Your task to perform on an android device: turn off notifications in google photos Image 0: 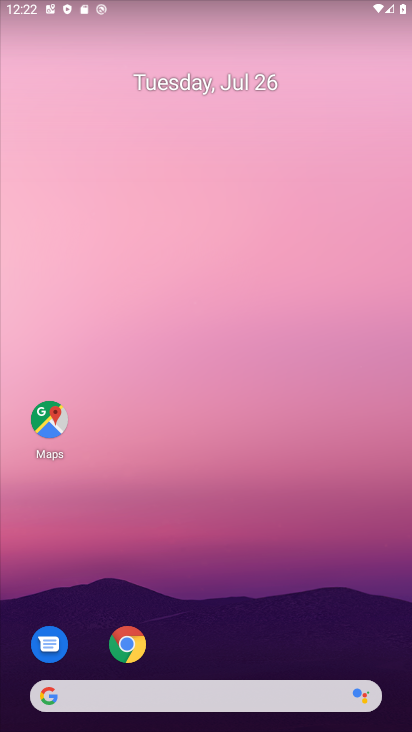
Step 0: drag from (228, 593) to (175, 95)
Your task to perform on an android device: turn off notifications in google photos Image 1: 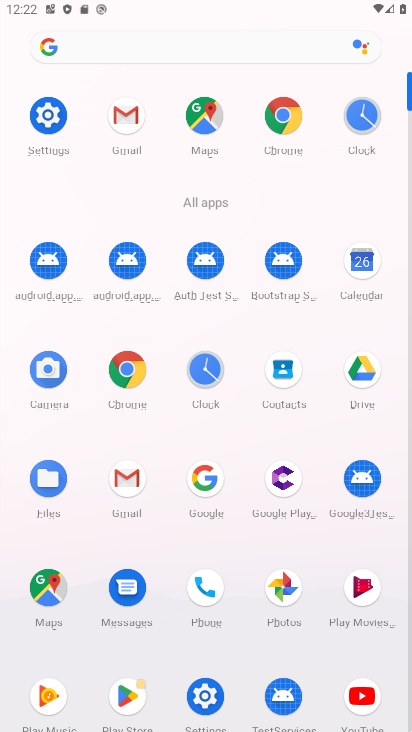
Step 1: click (284, 585)
Your task to perform on an android device: turn off notifications in google photos Image 2: 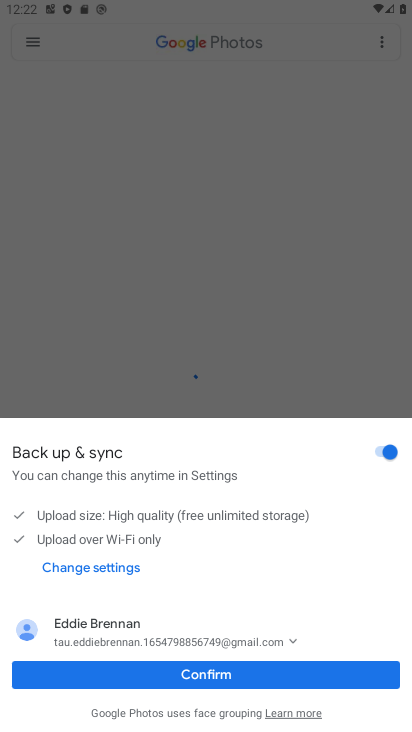
Step 2: click (231, 667)
Your task to perform on an android device: turn off notifications in google photos Image 3: 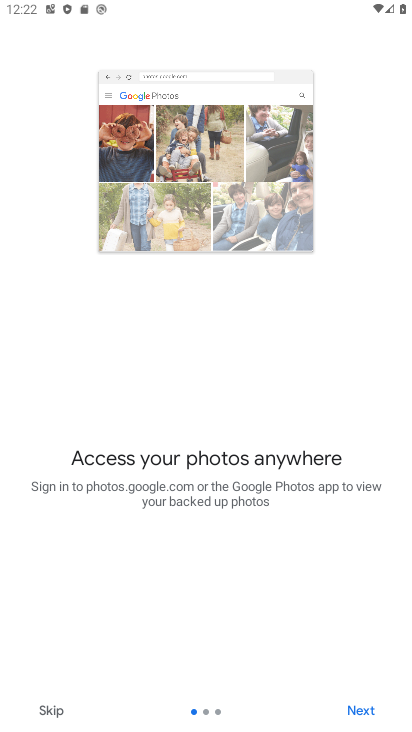
Step 3: click (354, 712)
Your task to perform on an android device: turn off notifications in google photos Image 4: 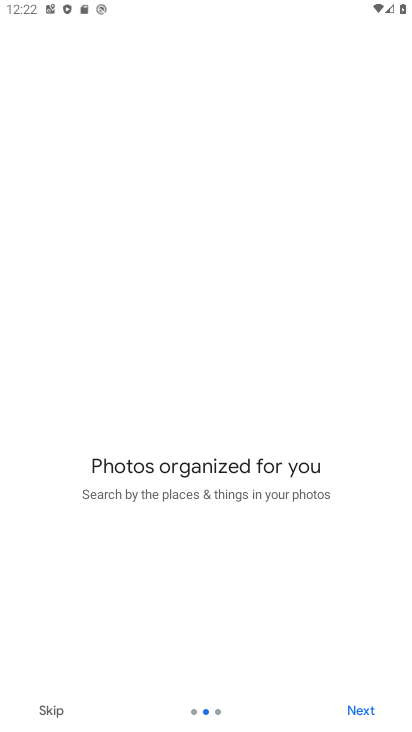
Step 4: click (354, 712)
Your task to perform on an android device: turn off notifications in google photos Image 5: 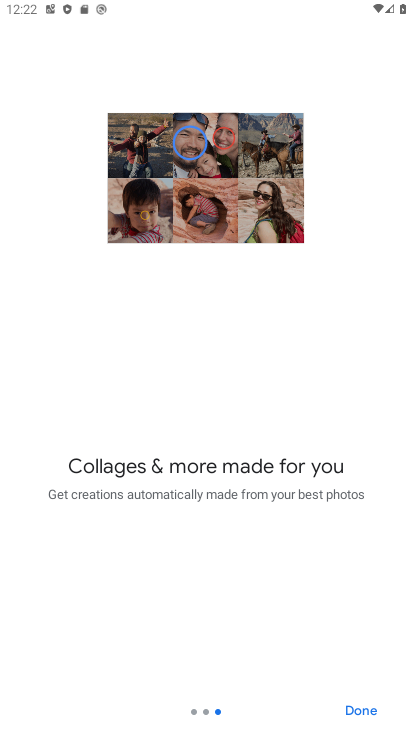
Step 5: click (356, 712)
Your task to perform on an android device: turn off notifications in google photos Image 6: 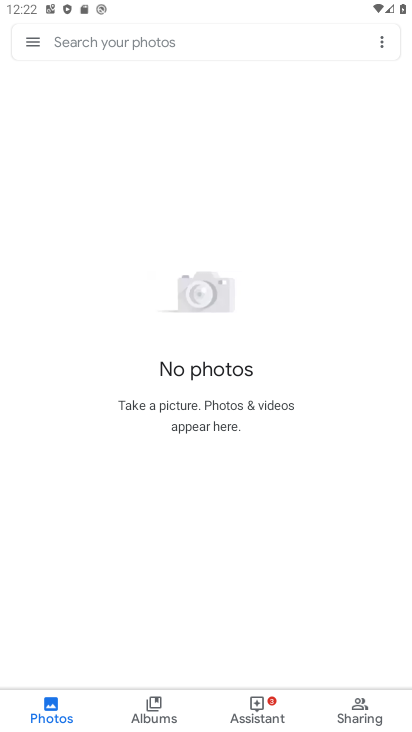
Step 6: click (26, 38)
Your task to perform on an android device: turn off notifications in google photos Image 7: 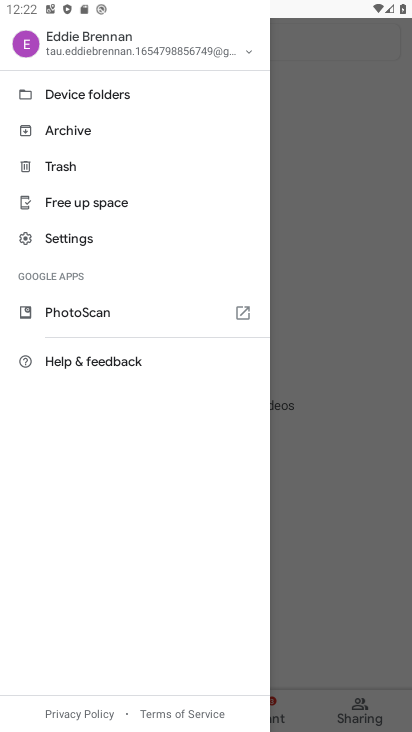
Step 7: click (96, 232)
Your task to perform on an android device: turn off notifications in google photos Image 8: 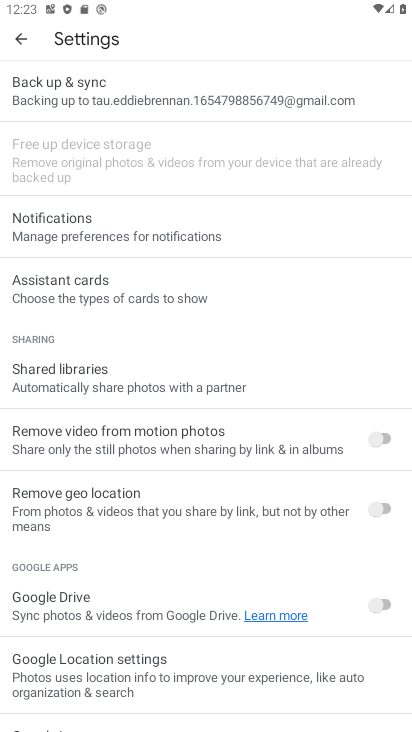
Step 8: click (102, 230)
Your task to perform on an android device: turn off notifications in google photos Image 9: 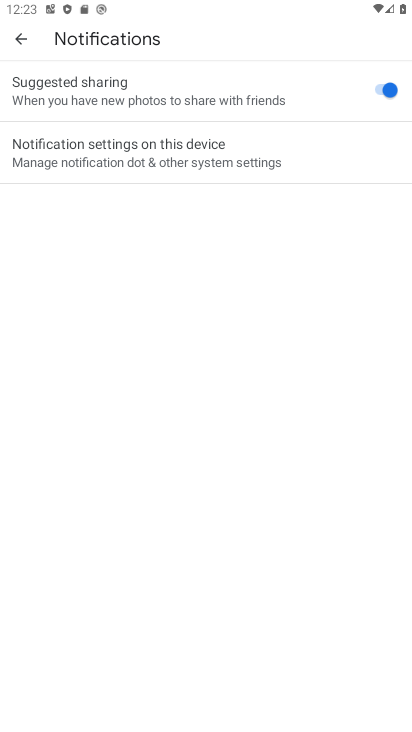
Step 9: click (171, 145)
Your task to perform on an android device: turn off notifications in google photos Image 10: 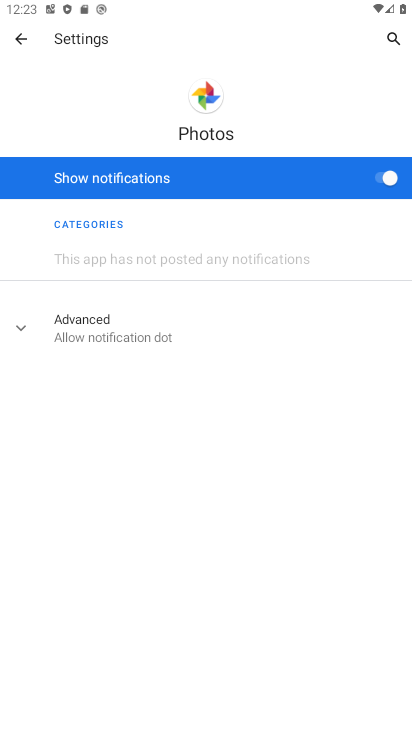
Step 10: click (372, 168)
Your task to perform on an android device: turn off notifications in google photos Image 11: 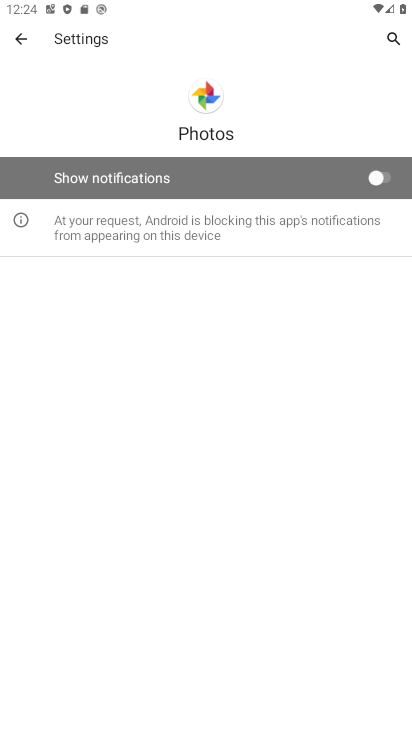
Step 11: task complete